Your task to perform on an android device: Go to Google Image 0: 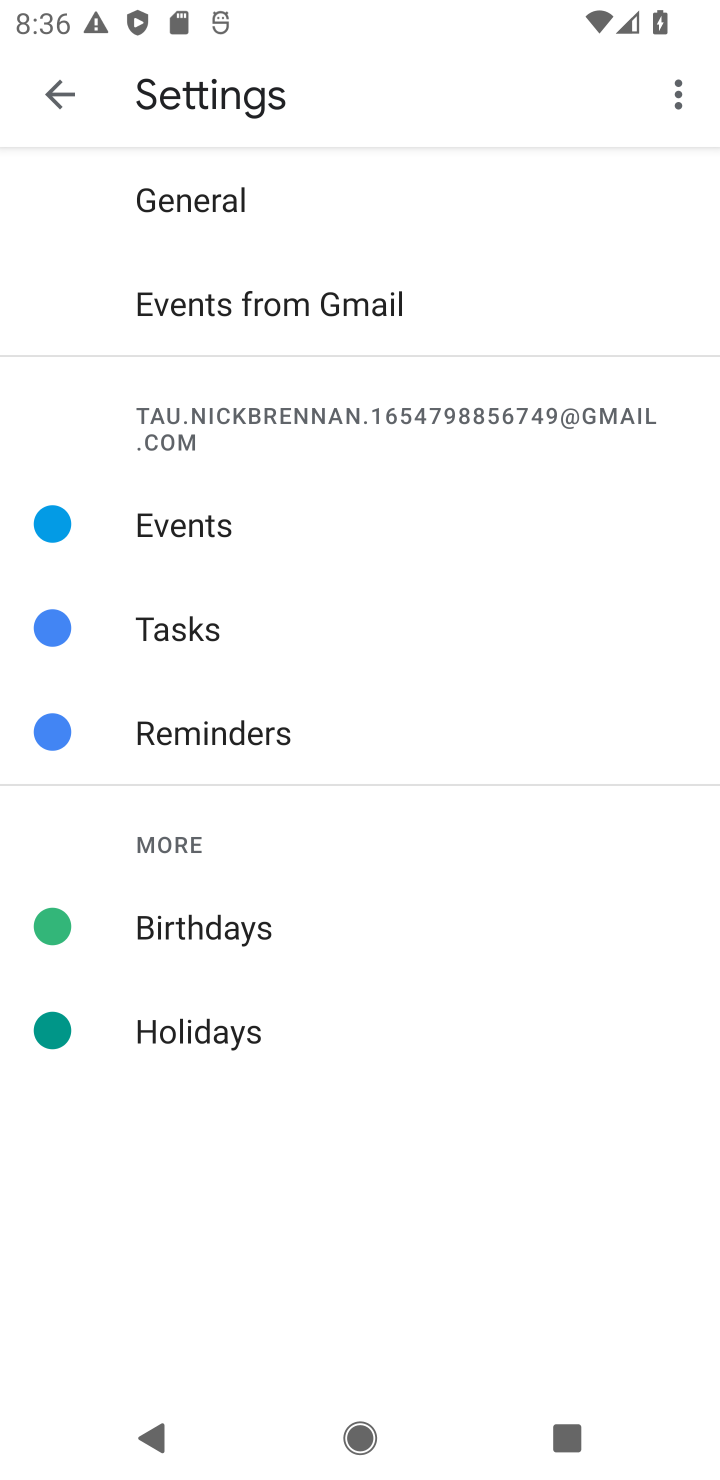
Step 0: press home button
Your task to perform on an android device: Go to Google Image 1: 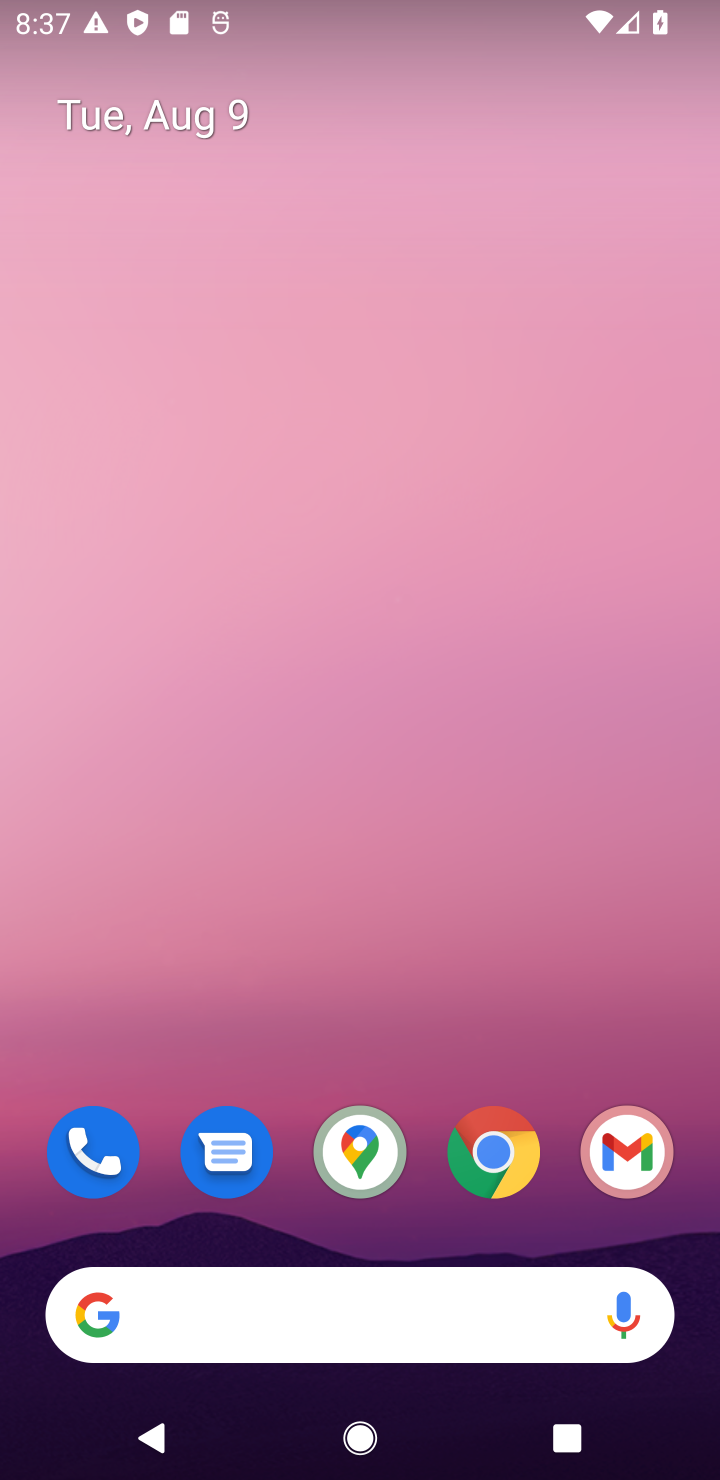
Step 1: click (361, 1264)
Your task to perform on an android device: Go to Google Image 2: 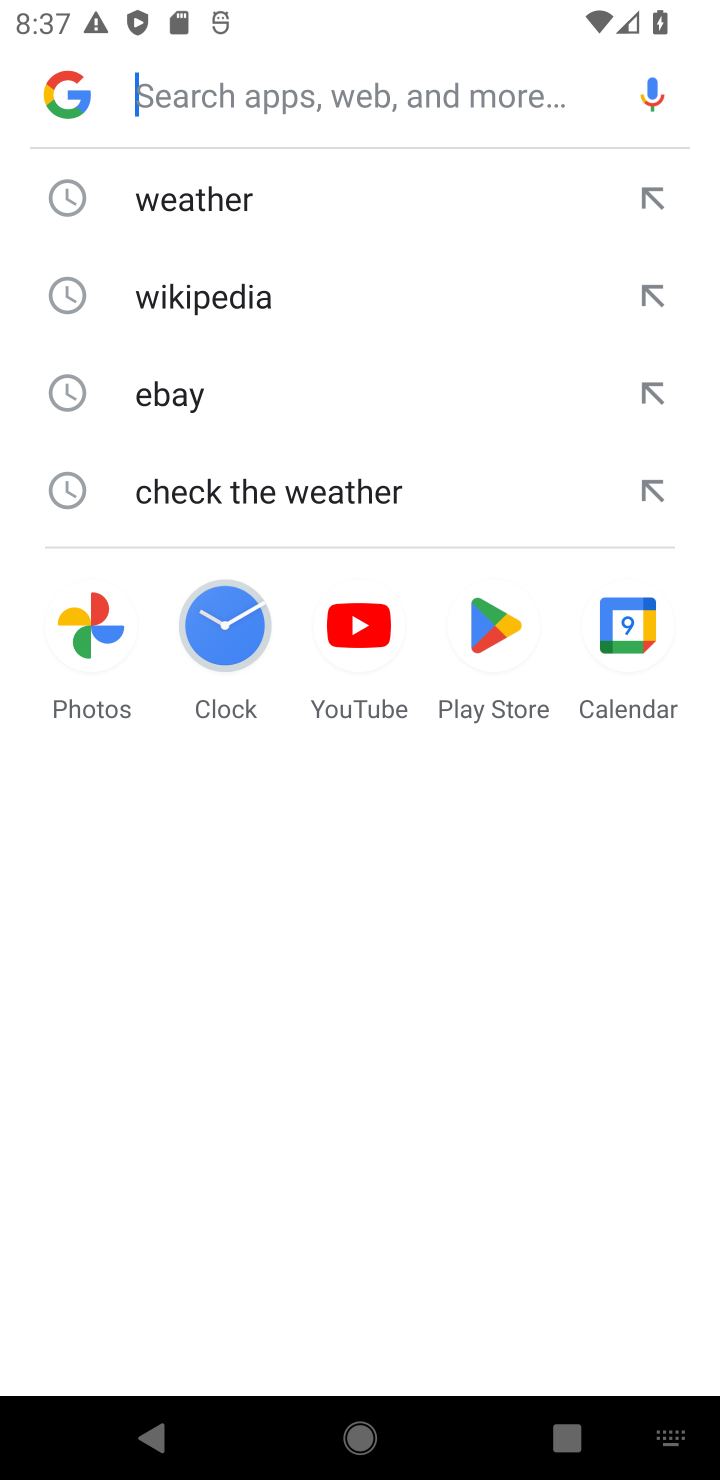
Step 2: task complete